Your task to perform on an android device: Do I have any events this weekend? Image 0: 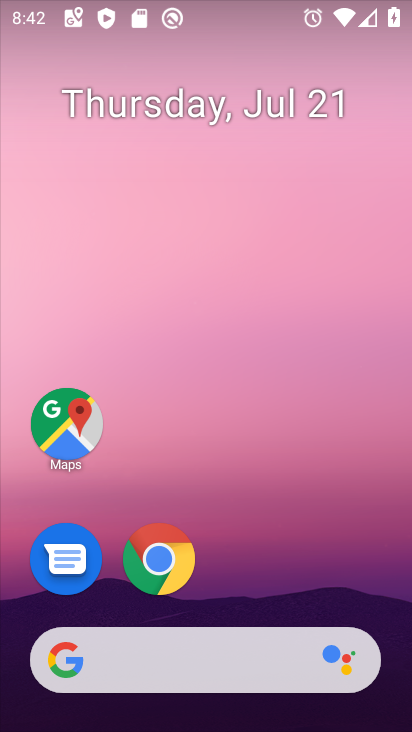
Step 0: drag from (350, 535) to (381, 91)
Your task to perform on an android device: Do I have any events this weekend? Image 1: 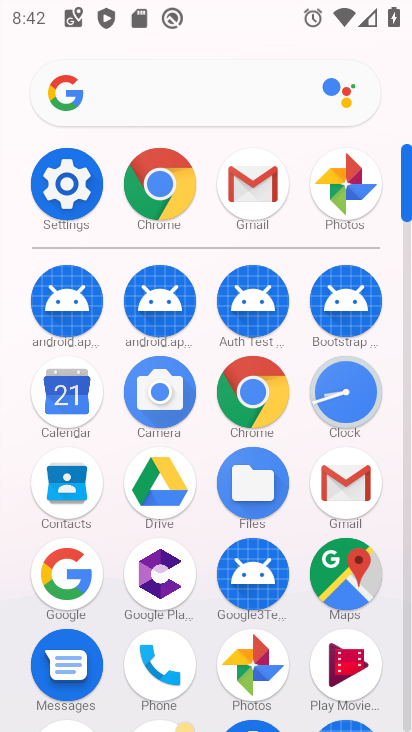
Step 1: click (72, 400)
Your task to perform on an android device: Do I have any events this weekend? Image 2: 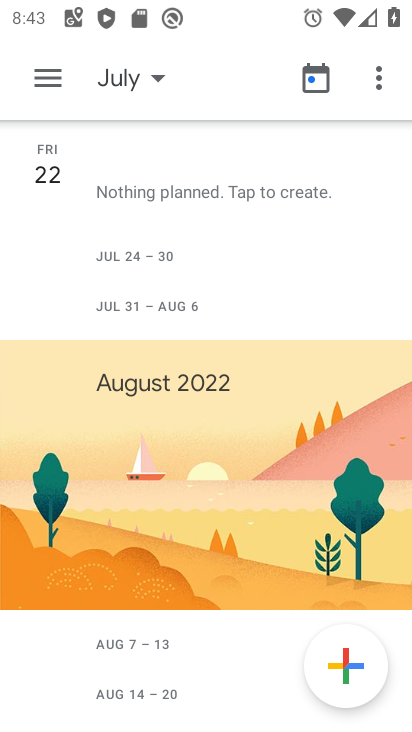
Step 2: task complete